Your task to perform on an android device: stop showing notifications on the lock screen Image 0: 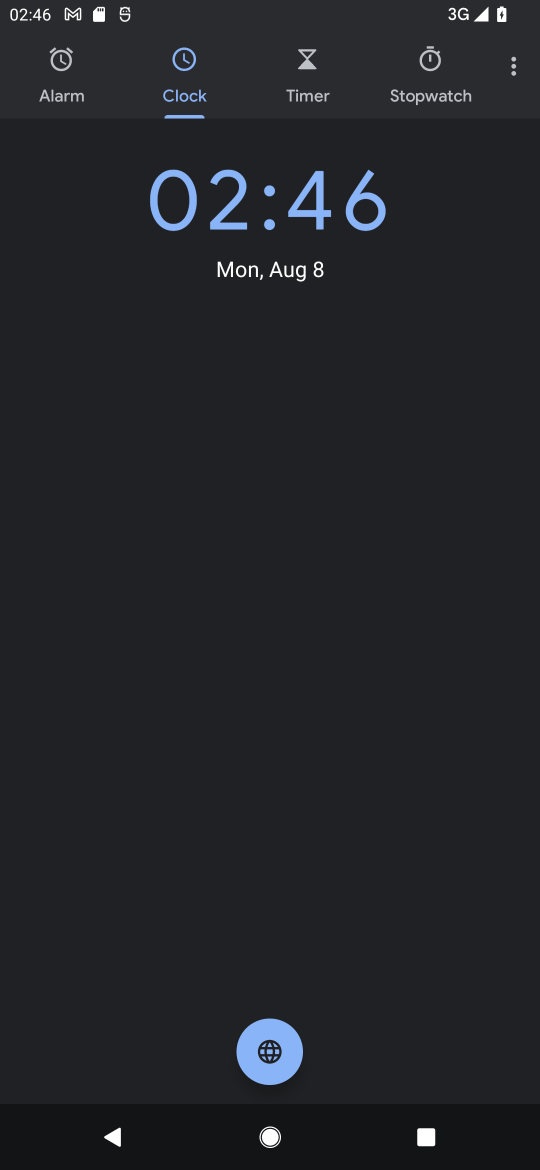
Step 0: press home button
Your task to perform on an android device: stop showing notifications on the lock screen Image 1: 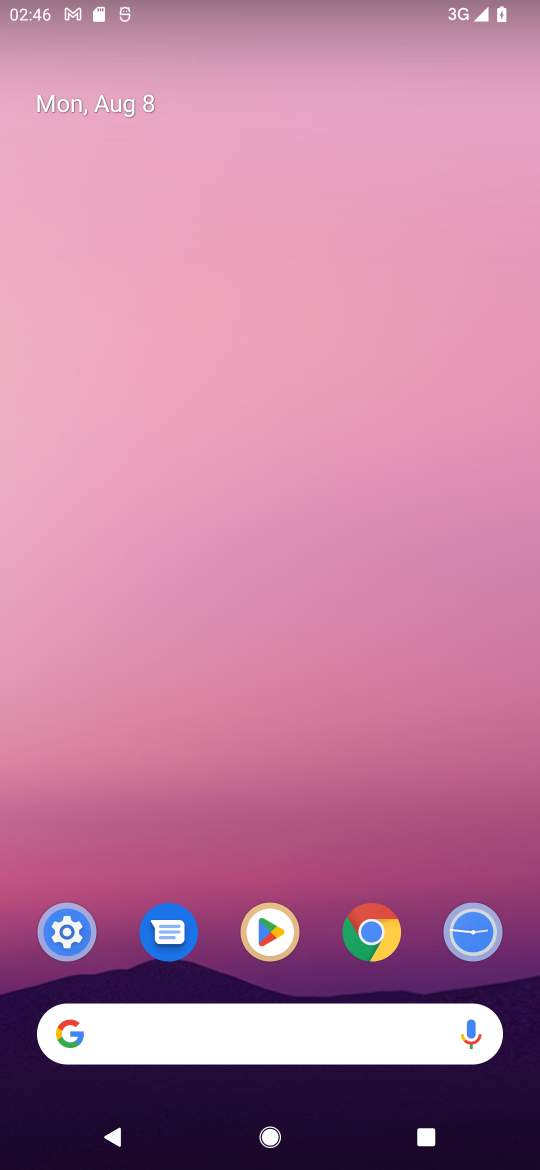
Step 1: drag from (16, 477) to (231, 63)
Your task to perform on an android device: stop showing notifications on the lock screen Image 2: 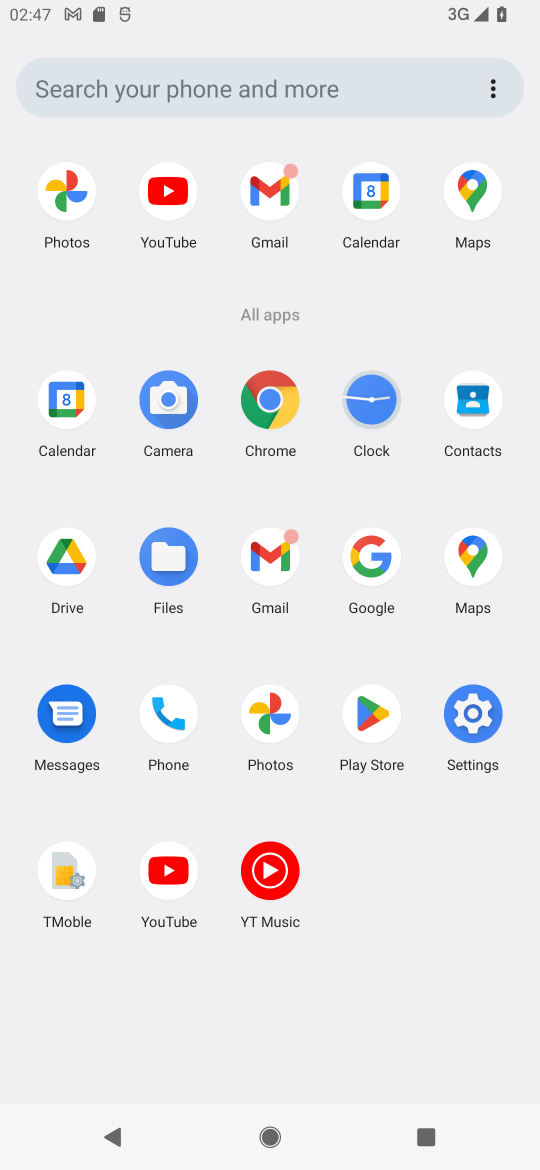
Step 2: click (472, 699)
Your task to perform on an android device: stop showing notifications on the lock screen Image 3: 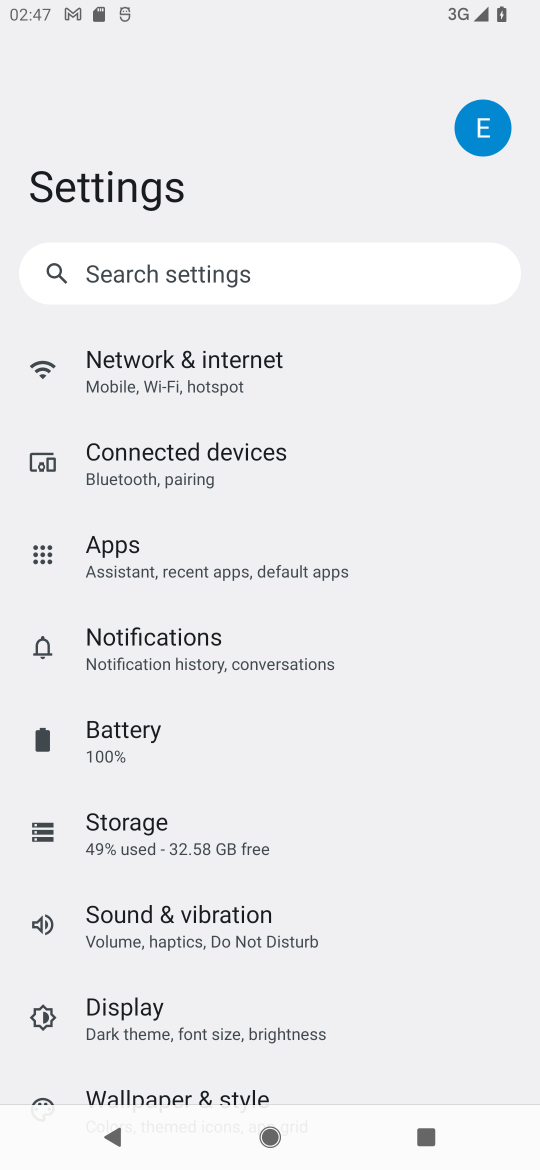
Step 3: click (165, 649)
Your task to perform on an android device: stop showing notifications on the lock screen Image 4: 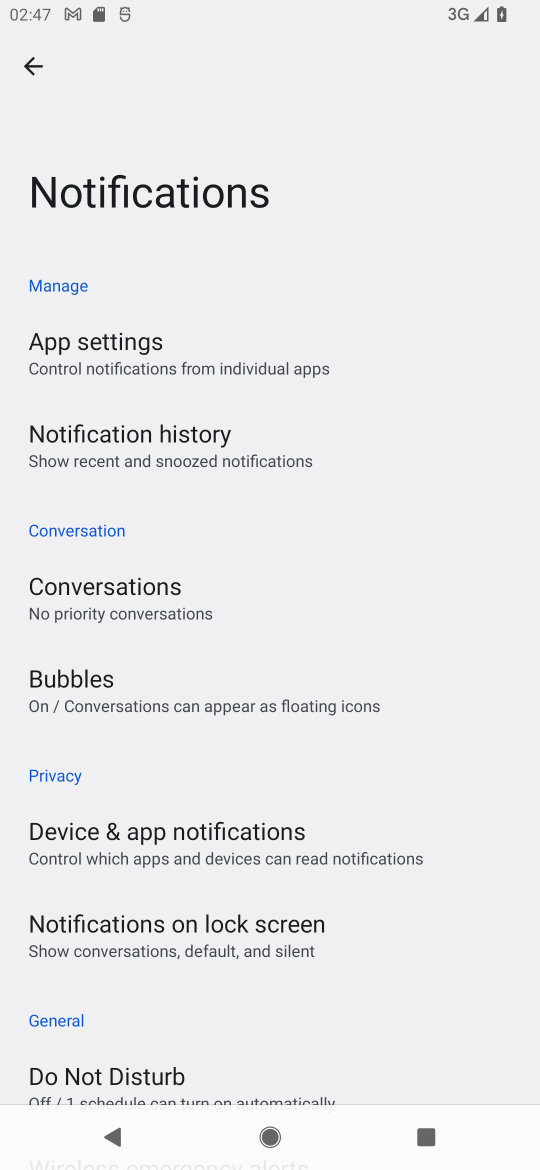
Step 4: click (250, 946)
Your task to perform on an android device: stop showing notifications on the lock screen Image 5: 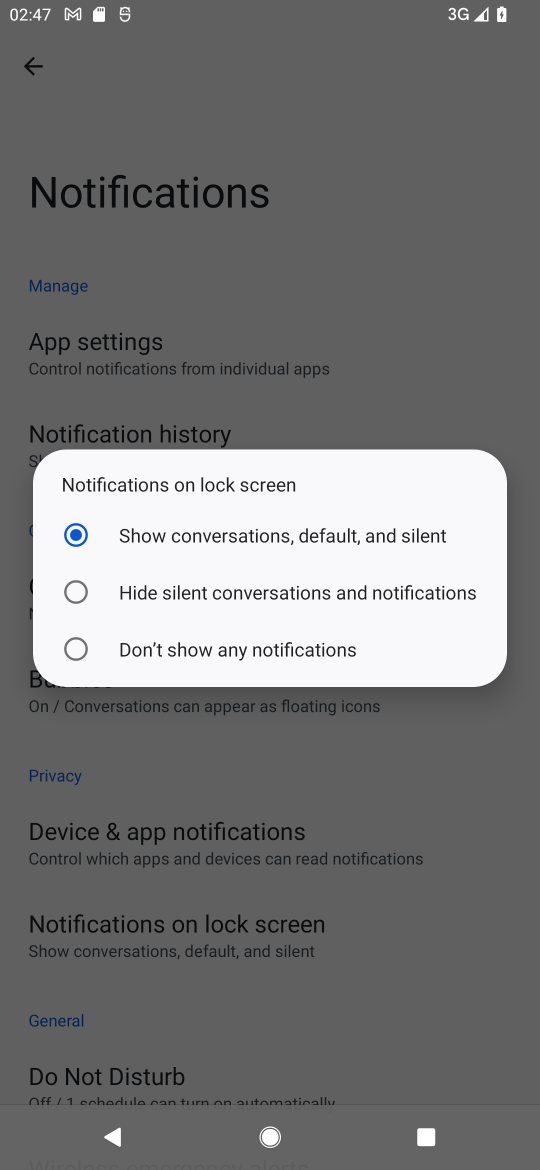
Step 5: click (178, 661)
Your task to perform on an android device: stop showing notifications on the lock screen Image 6: 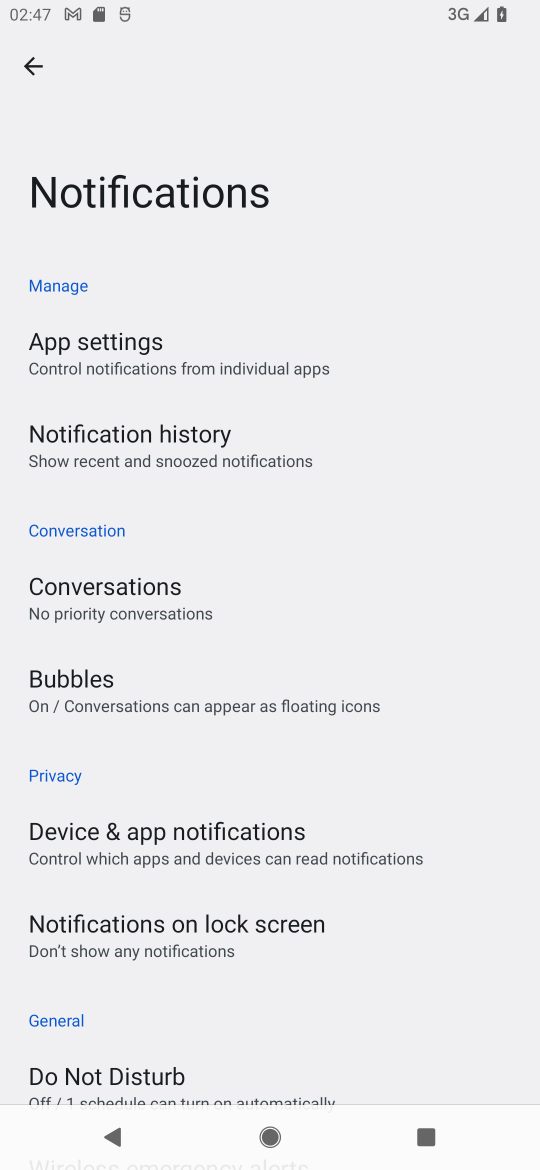
Step 6: task complete